Your task to perform on an android device: read, delete, or share a saved page in the chrome app Image 0: 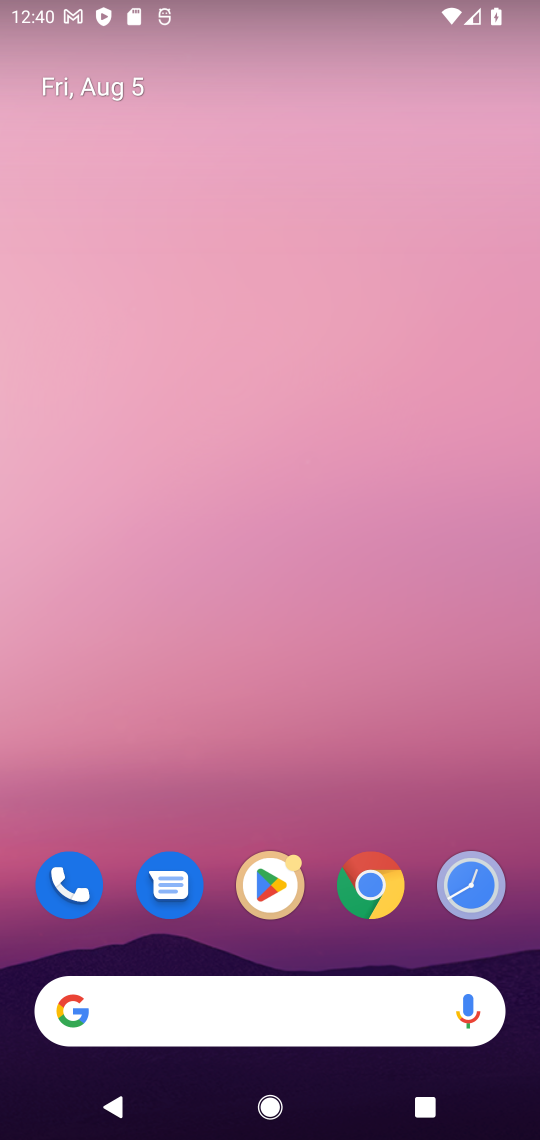
Step 0: click (379, 640)
Your task to perform on an android device: read, delete, or share a saved page in the chrome app Image 1: 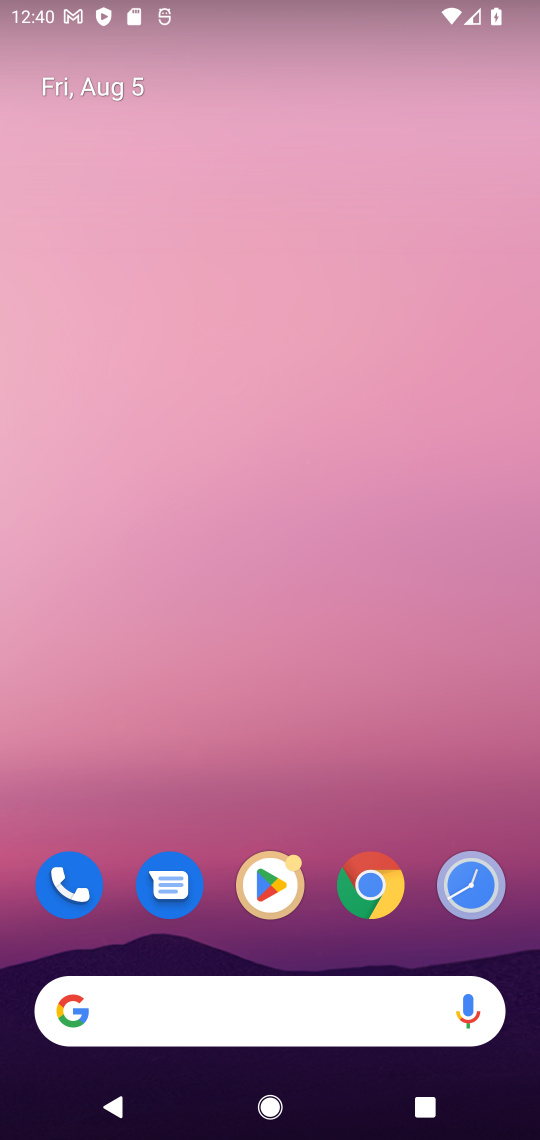
Step 1: click (384, 894)
Your task to perform on an android device: read, delete, or share a saved page in the chrome app Image 2: 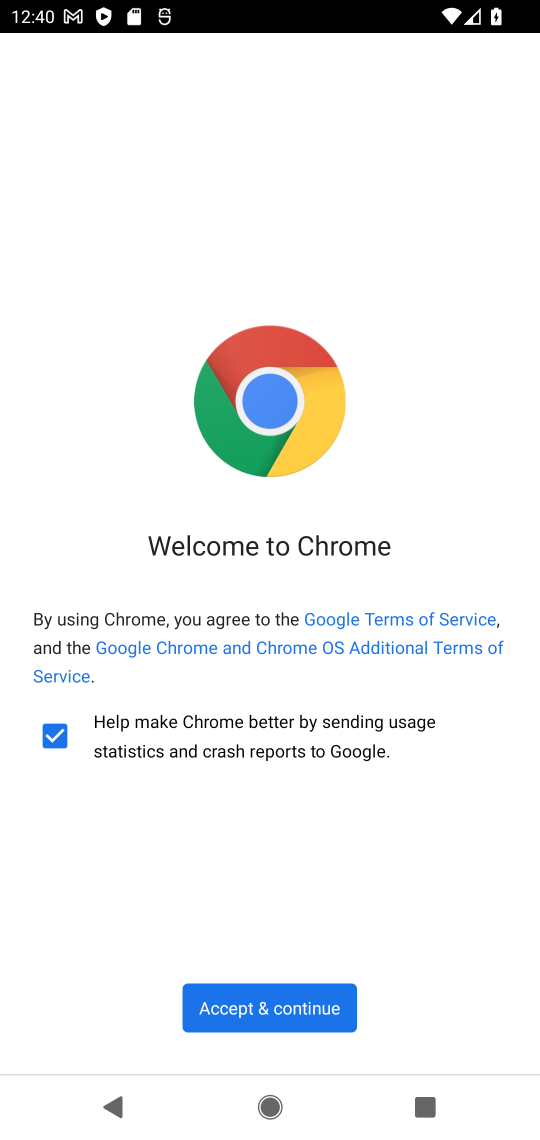
Step 2: click (227, 1017)
Your task to perform on an android device: read, delete, or share a saved page in the chrome app Image 3: 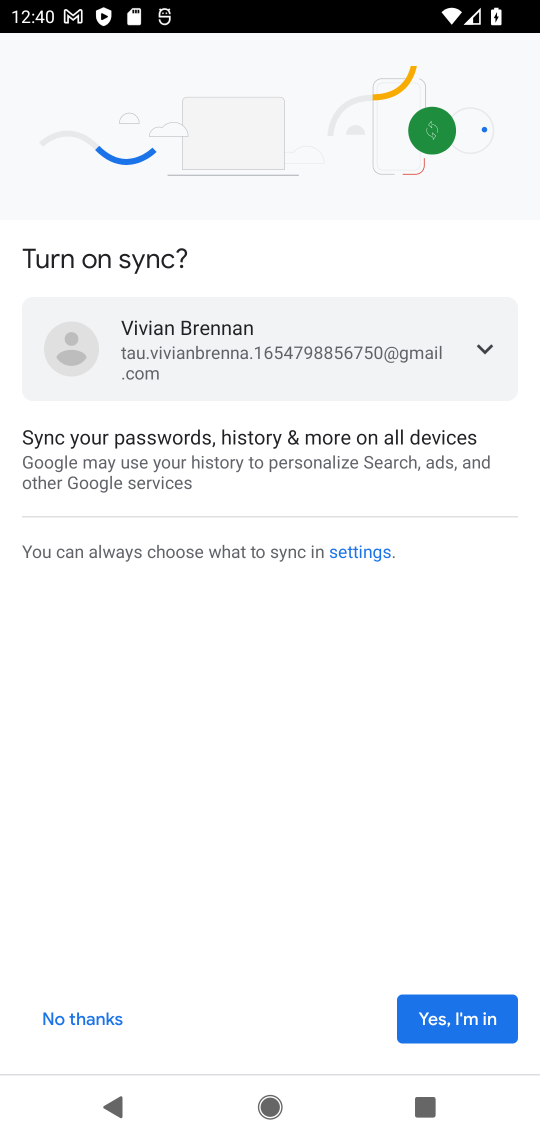
Step 3: click (455, 1018)
Your task to perform on an android device: read, delete, or share a saved page in the chrome app Image 4: 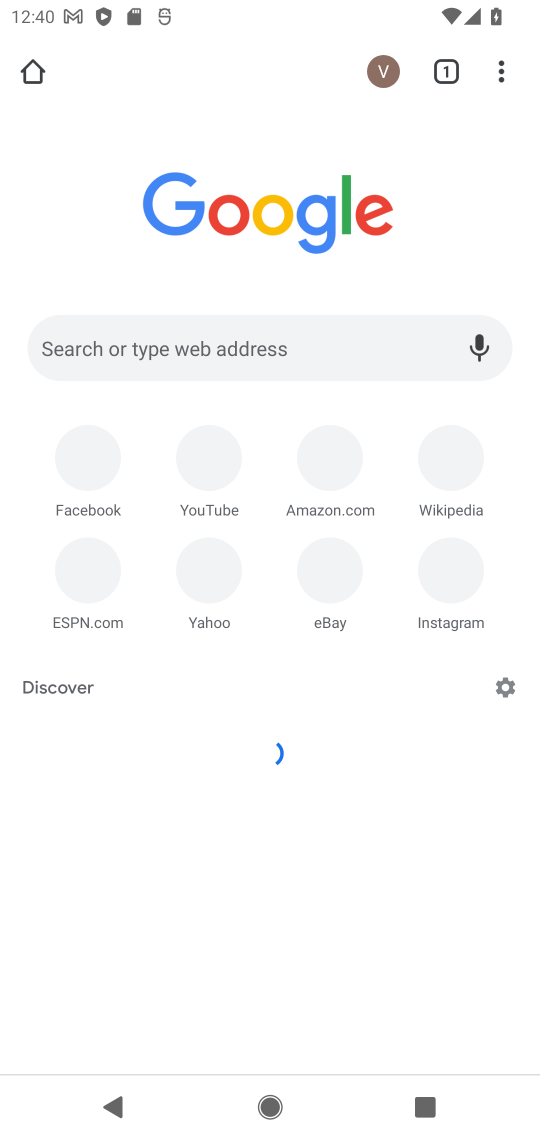
Step 4: task complete